Your task to perform on an android device: set the stopwatch Image 0: 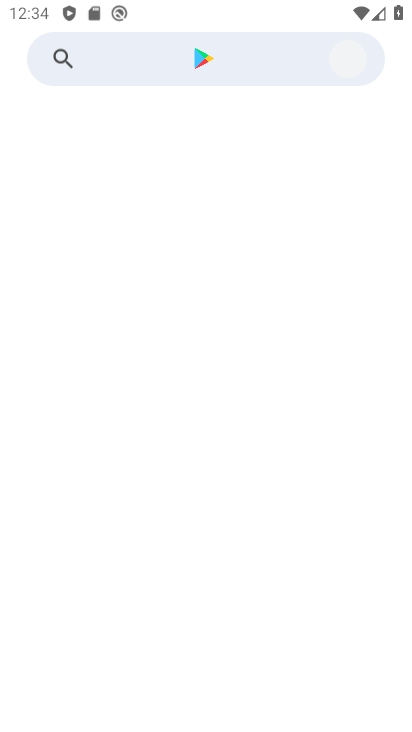
Step 0: press back button
Your task to perform on an android device: set the stopwatch Image 1: 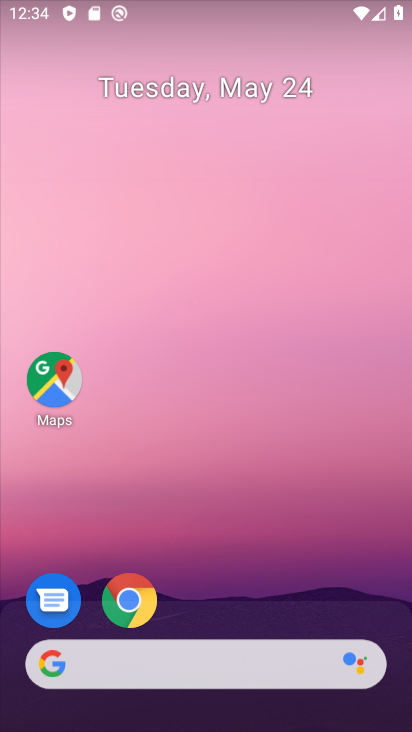
Step 1: drag from (316, 575) to (303, 26)
Your task to perform on an android device: set the stopwatch Image 2: 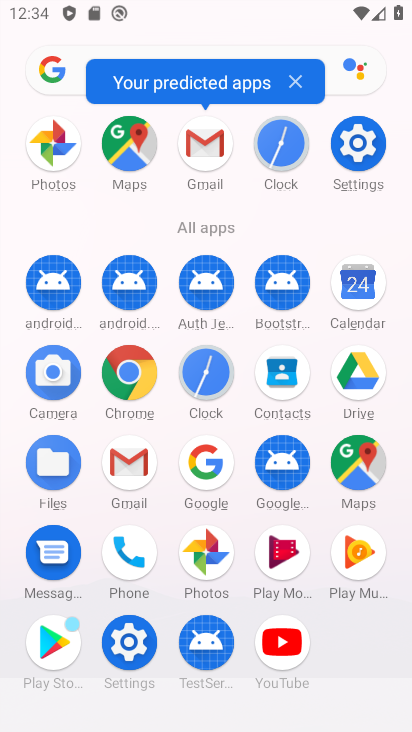
Step 2: click (212, 365)
Your task to perform on an android device: set the stopwatch Image 3: 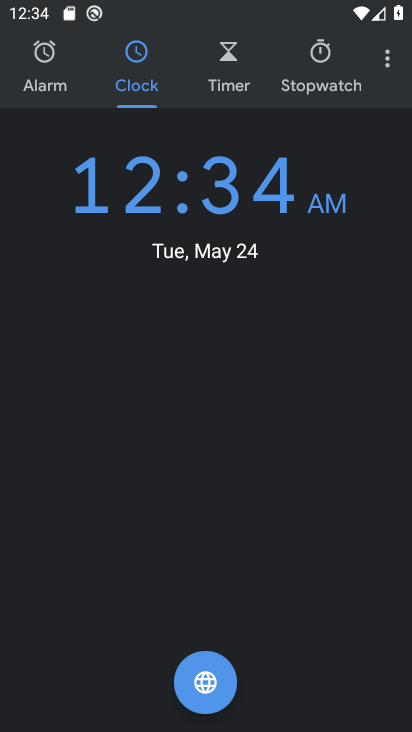
Step 3: click (324, 59)
Your task to perform on an android device: set the stopwatch Image 4: 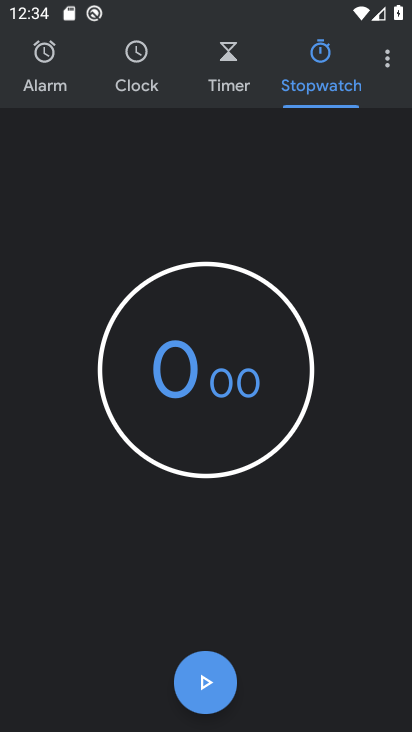
Step 4: click (184, 371)
Your task to perform on an android device: set the stopwatch Image 5: 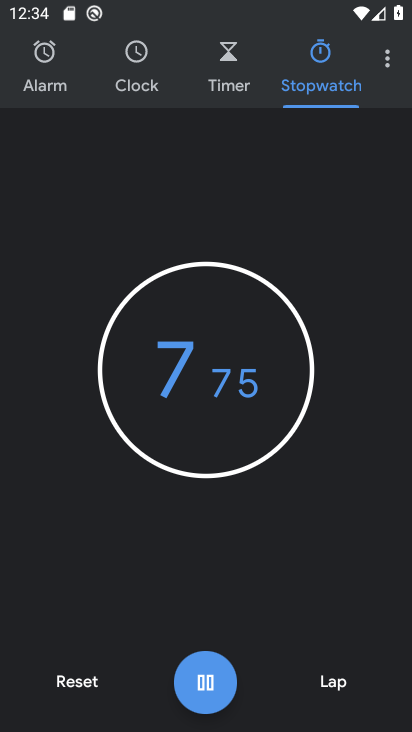
Step 5: click (161, 371)
Your task to perform on an android device: set the stopwatch Image 6: 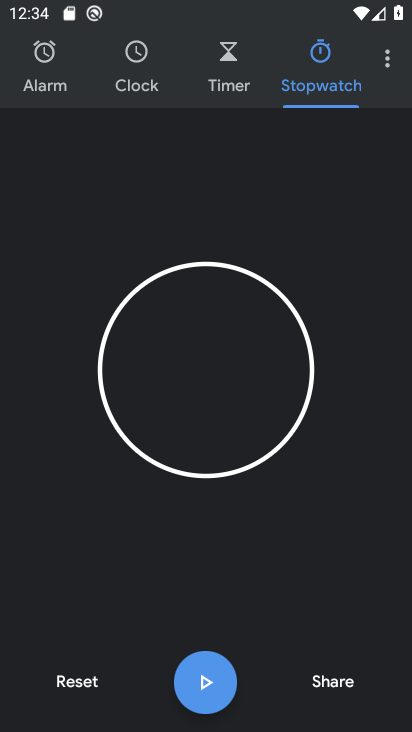
Step 6: task complete